Your task to perform on an android device: Play the last video I watched on Youtube Image 0: 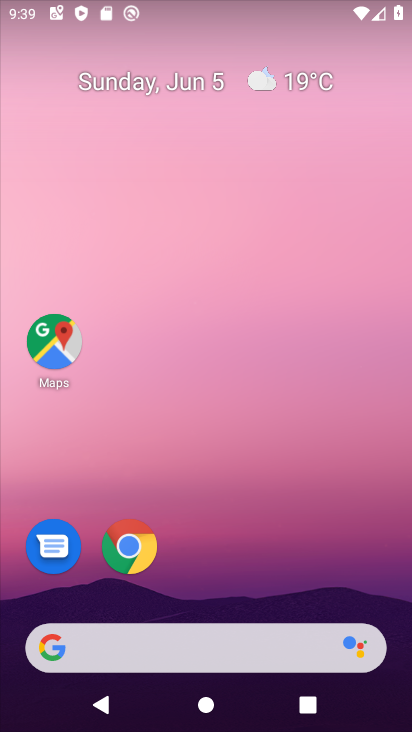
Step 0: drag from (167, 597) to (391, 99)
Your task to perform on an android device: Play the last video I watched on Youtube Image 1: 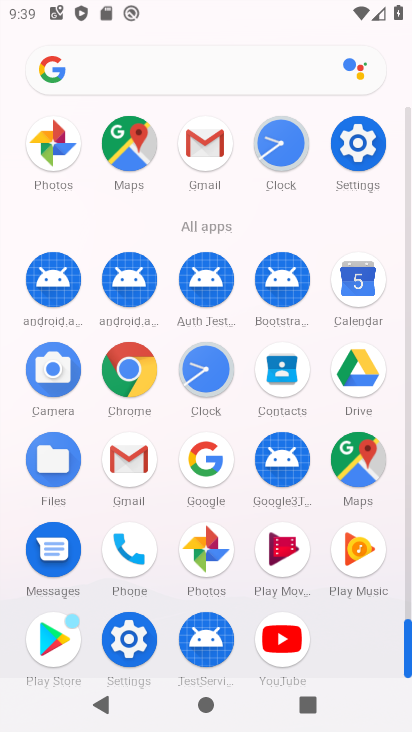
Step 1: click (282, 629)
Your task to perform on an android device: Play the last video I watched on Youtube Image 2: 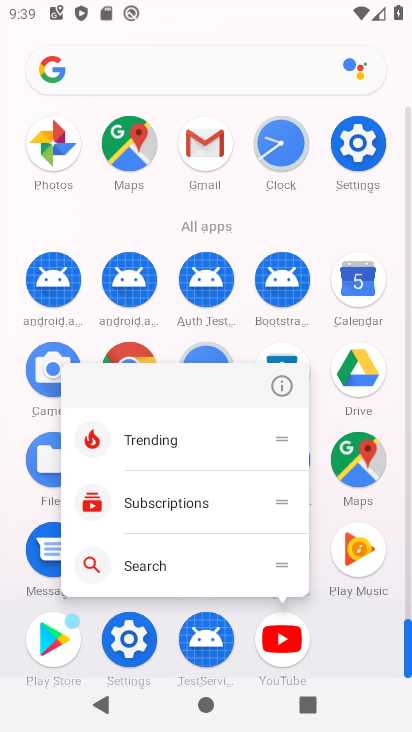
Step 2: click (282, 638)
Your task to perform on an android device: Play the last video I watched on Youtube Image 3: 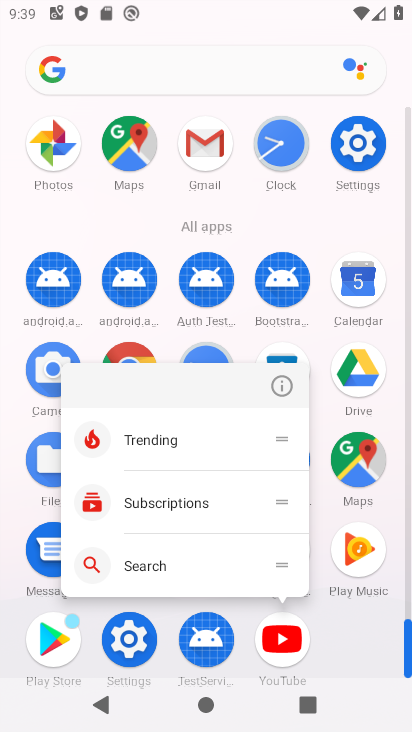
Step 3: click (283, 663)
Your task to perform on an android device: Play the last video I watched on Youtube Image 4: 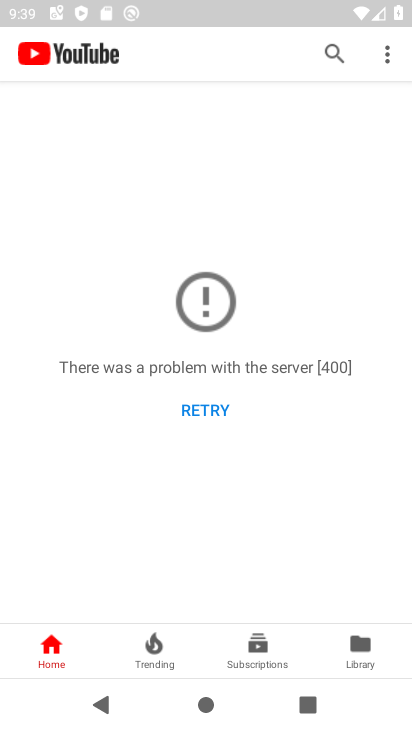
Step 4: click (379, 646)
Your task to perform on an android device: Play the last video I watched on Youtube Image 5: 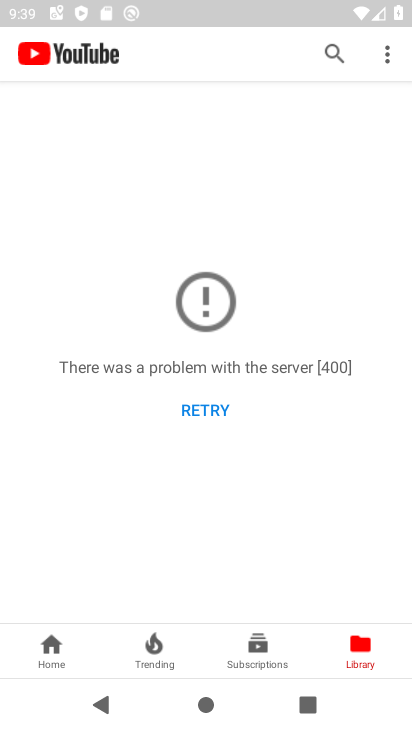
Step 5: task complete